Your task to perform on an android device: clear history in the chrome app Image 0: 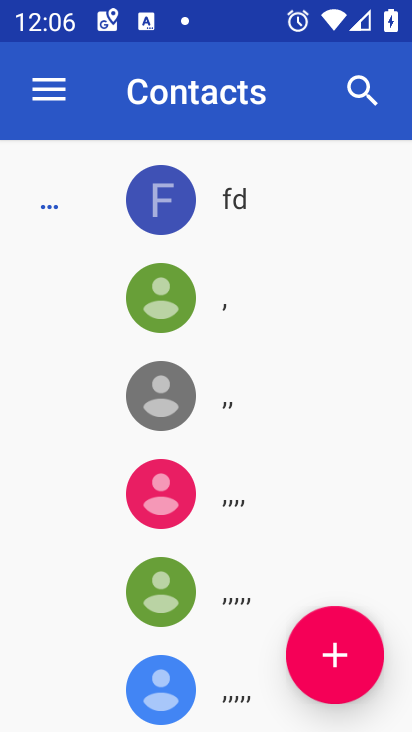
Step 0: press home button
Your task to perform on an android device: clear history in the chrome app Image 1: 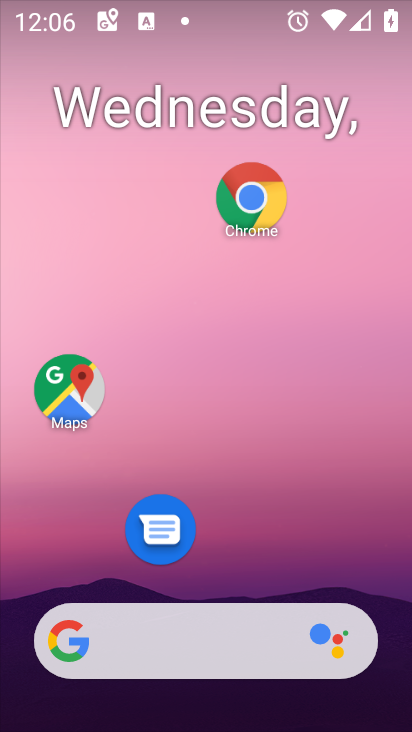
Step 1: click (240, 200)
Your task to perform on an android device: clear history in the chrome app Image 2: 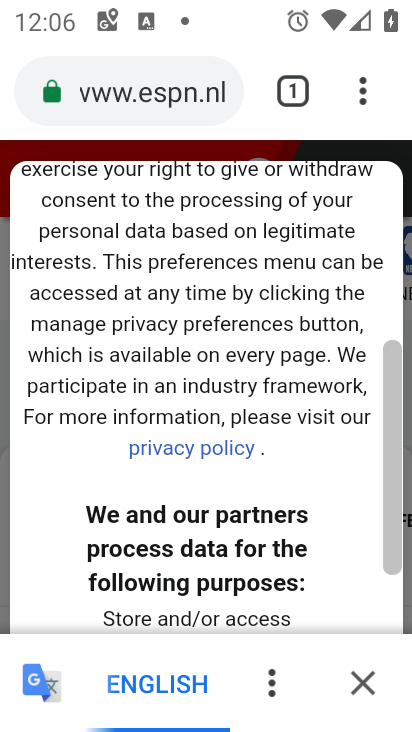
Step 2: click (354, 95)
Your task to perform on an android device: clear history in the chrome app Image 3: 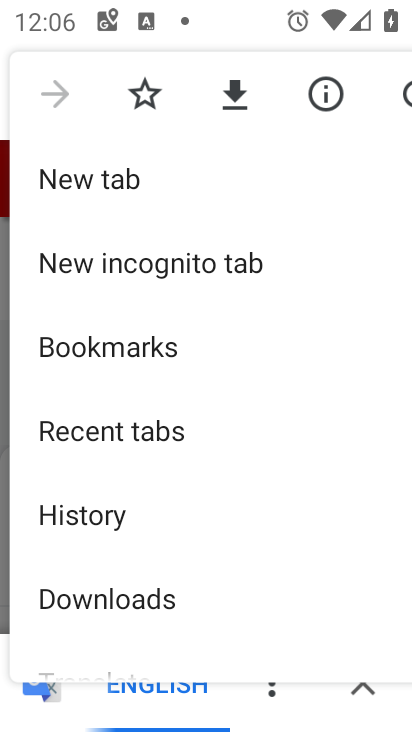
Step 3: click (121, 524)
Your task to perform on an android device: clear history in the chrome app Image 4: 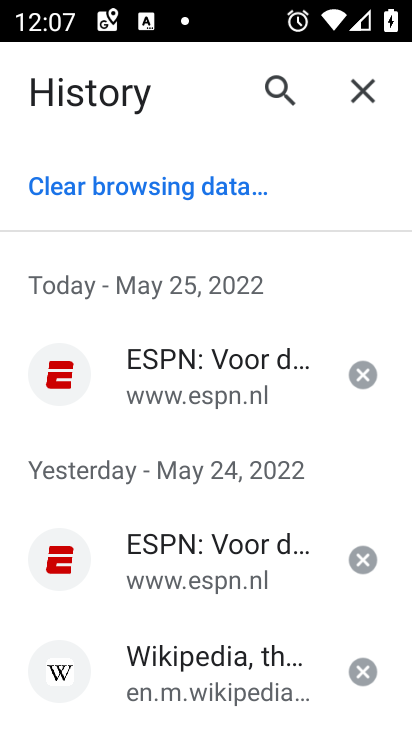
Step 4: click (169, 184)
Your task to perform on an android device: clear history in the chrome app Image 5: 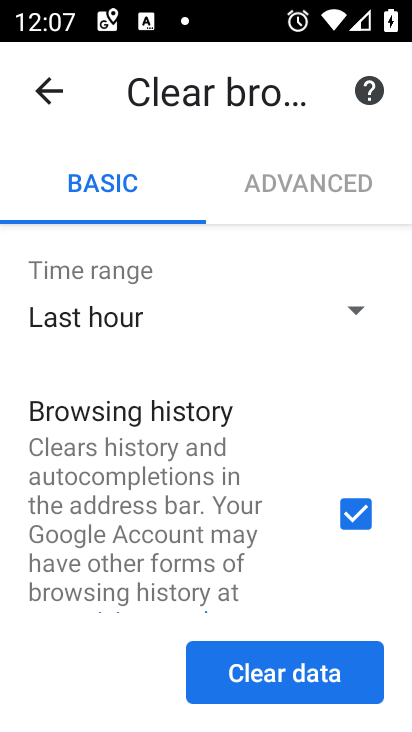
Step 5: click (276, 669)
Your task to perform on an android device: clear history in the chrome app Image 6: 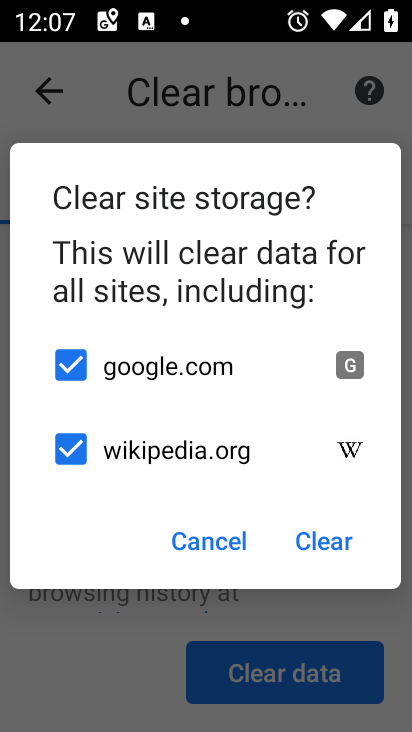
Step 6: click (330, 548)
Your task to perform on an android device: clear history in the chrome app Image 7: 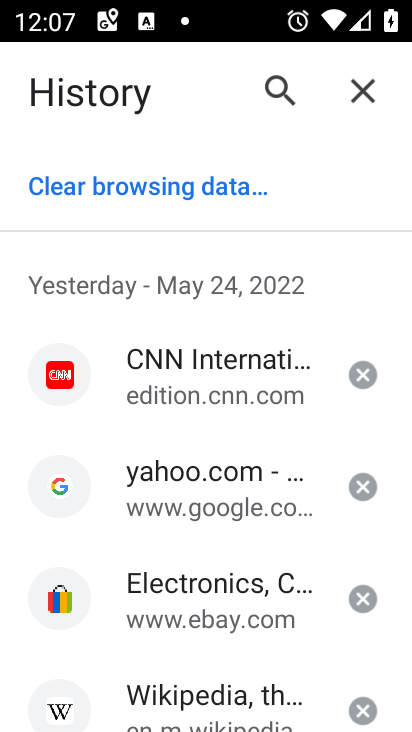
Step 7: task complete